Your task to perform on an android device: Search for flights from NYC to London Image 0: 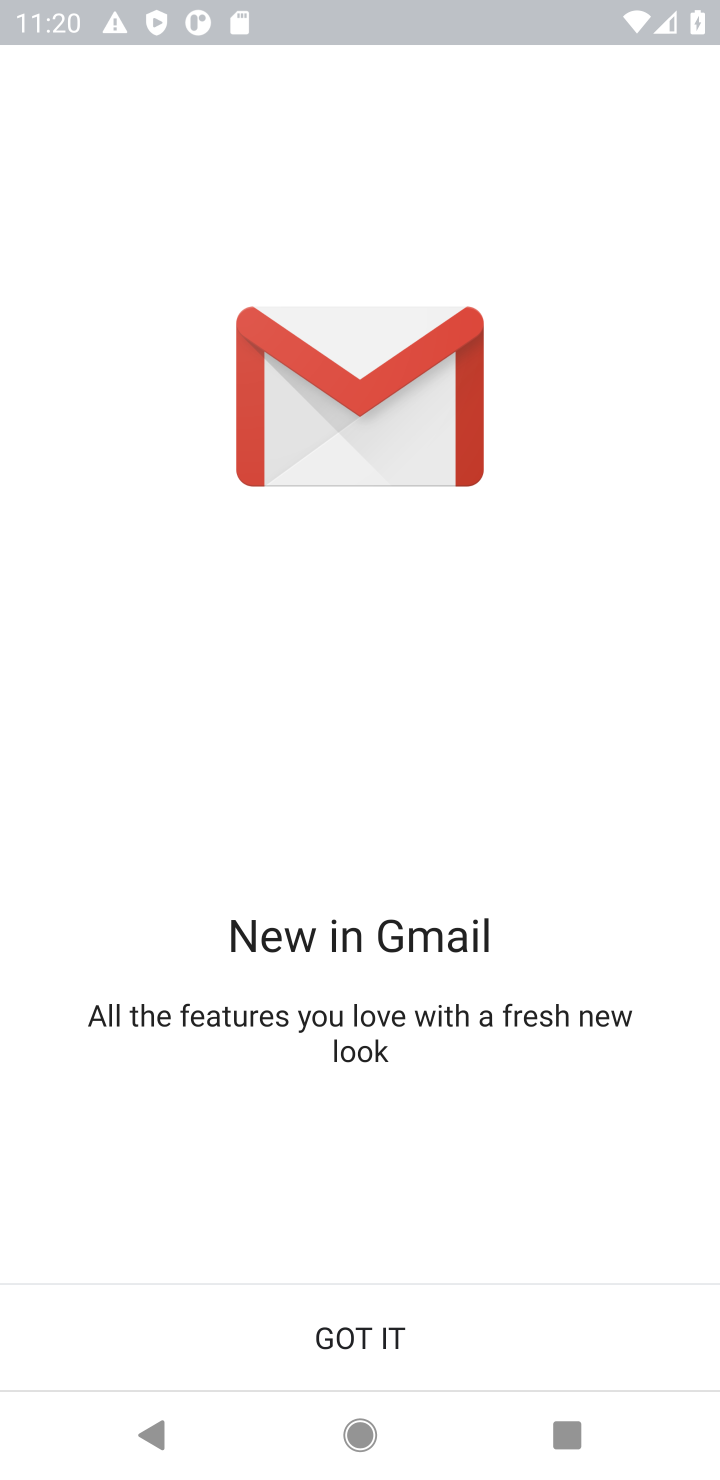
Step 0: press home button
Your task to perform on an android device: Search for flights from NYC to London Image 1: 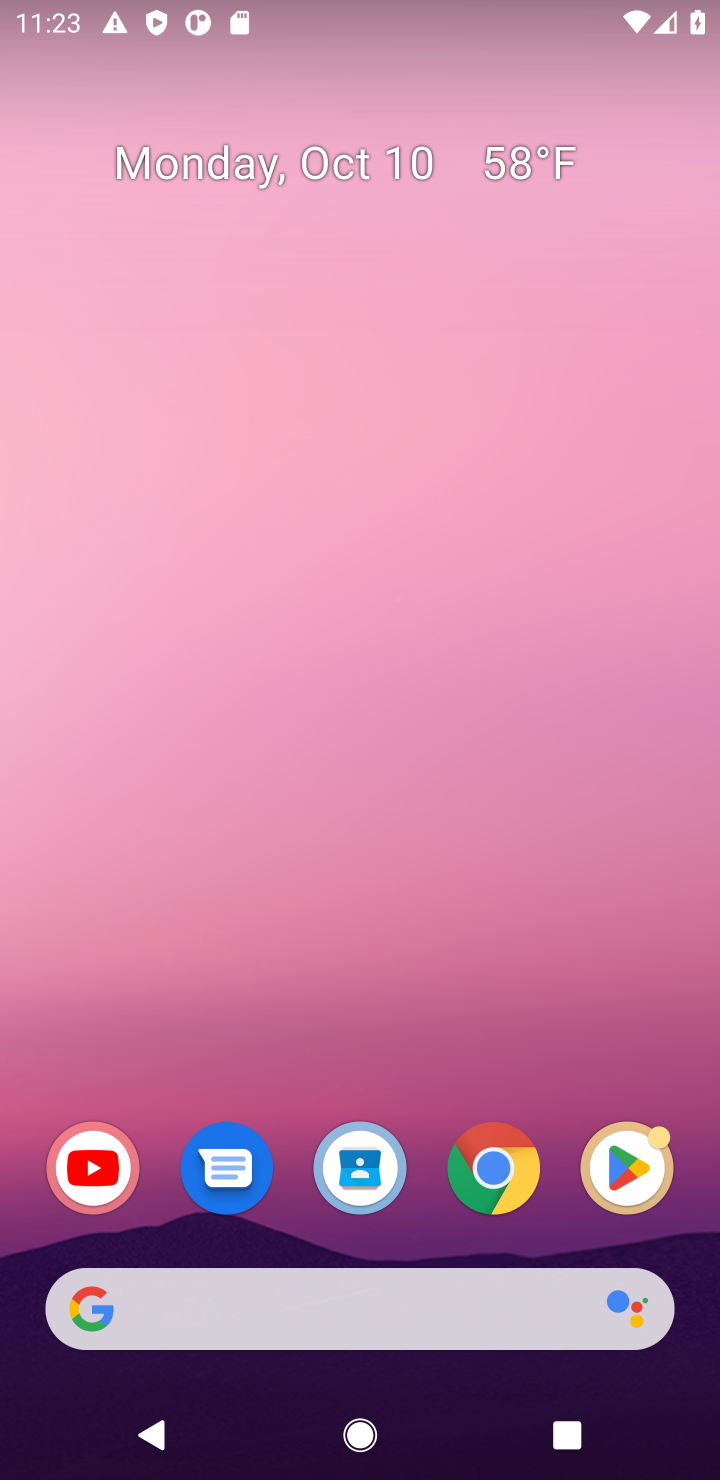
Step 1: click (331, 1280)
Your task to perform on an android device: Search for flights from NYC to London Image 2: 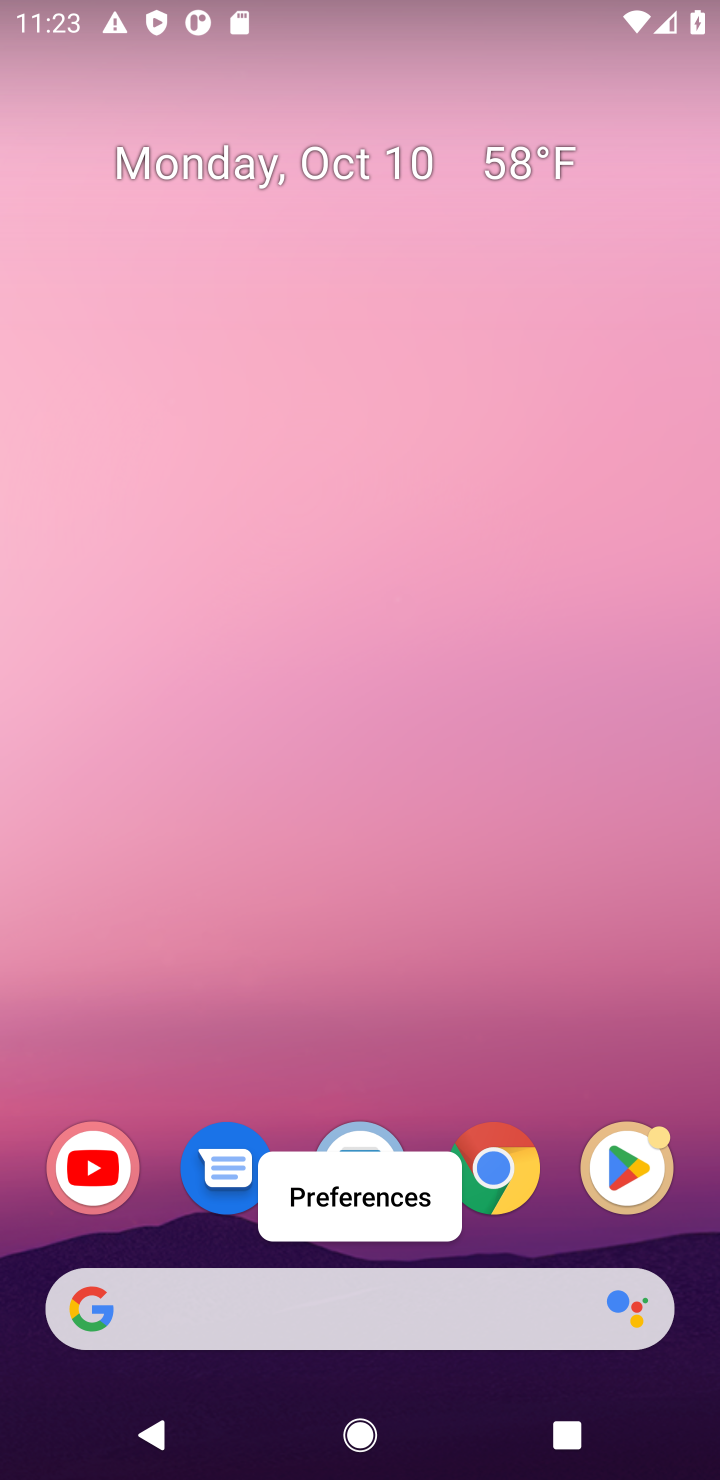
Step 2: click (333, 1301)
Your task to perform on an android device: Search for flights from NYC to London Image 3: 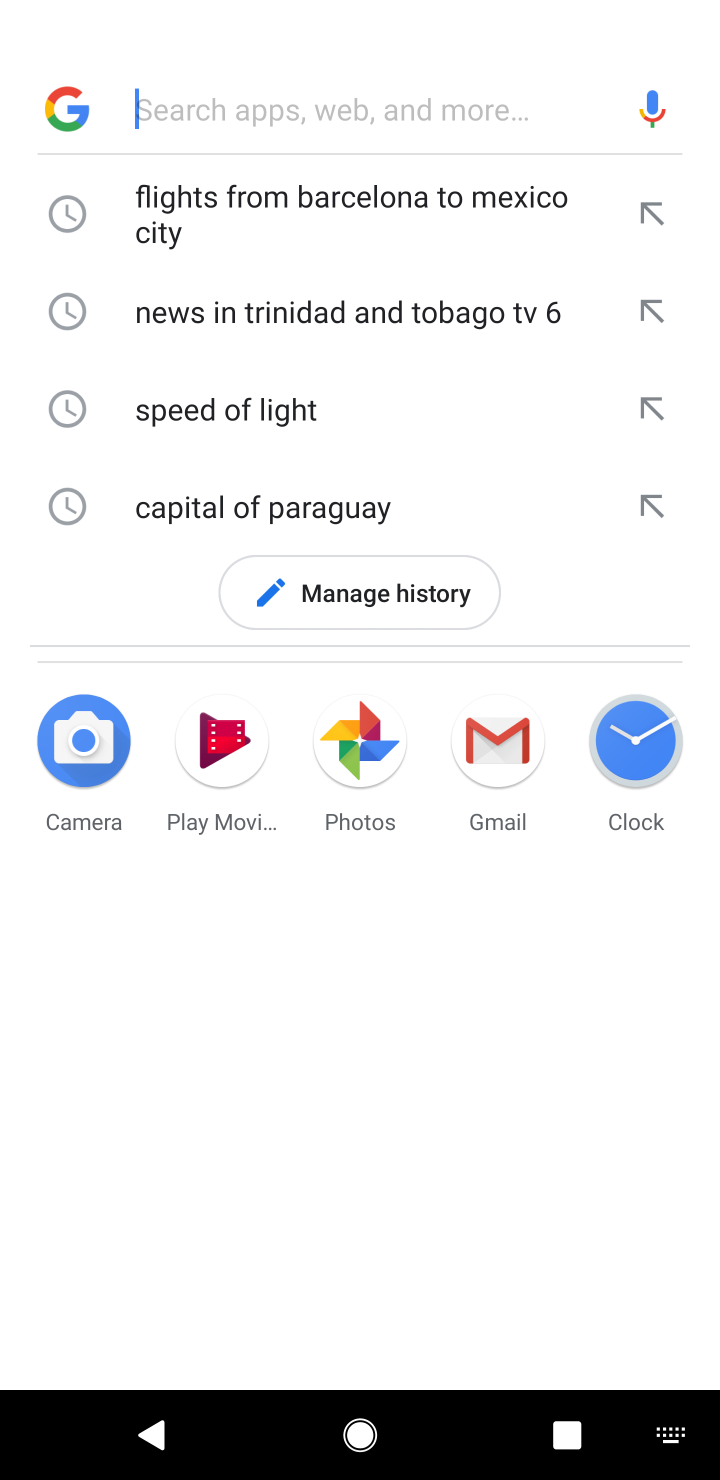
Step 3: type "flights from NYC to London"
Your task to perform on an android device: Search for flights from NYC to London Image 4: 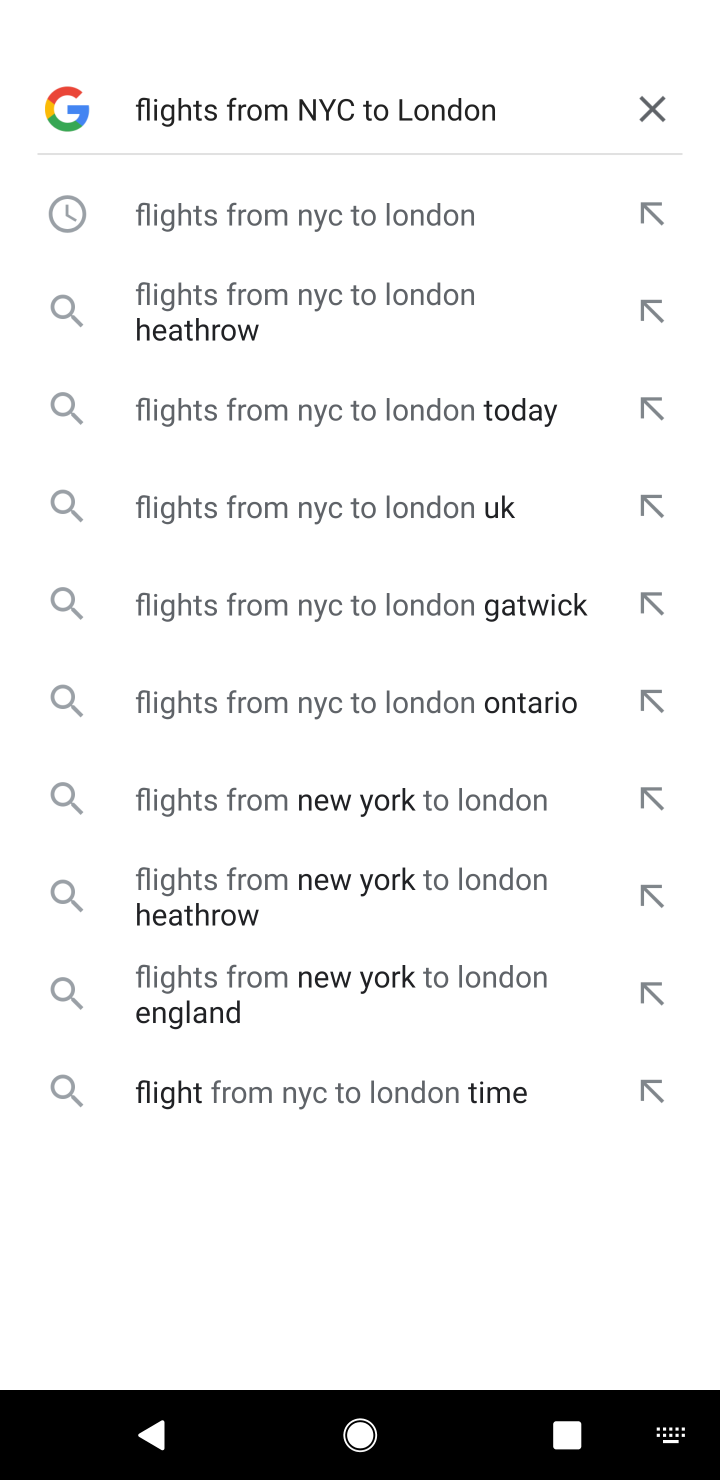
Step 4: type ""
Your task to perform on an android device: Search for flights from NYC to London Image 5: 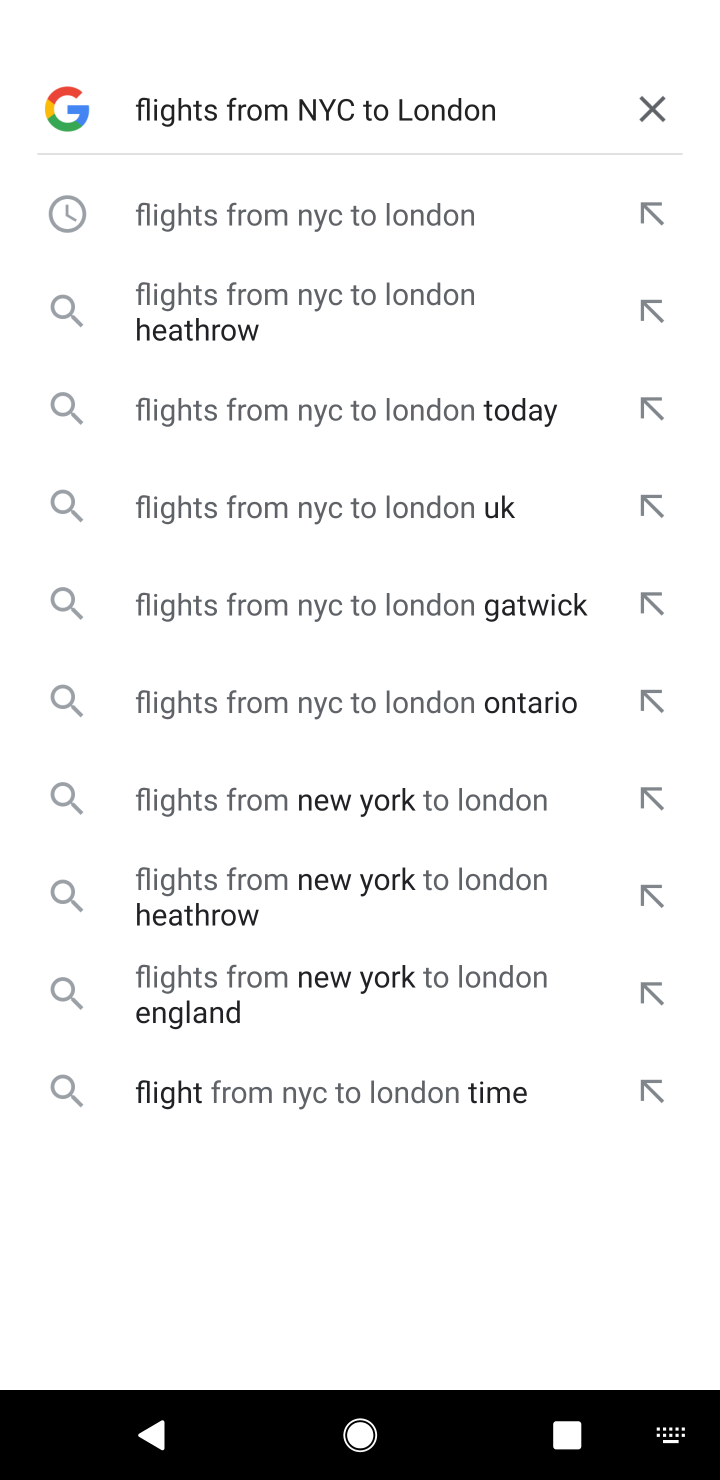
Step 5: click (270, 216)
Your task to perform on an android device: Search for flights from NYC to London Image 6: 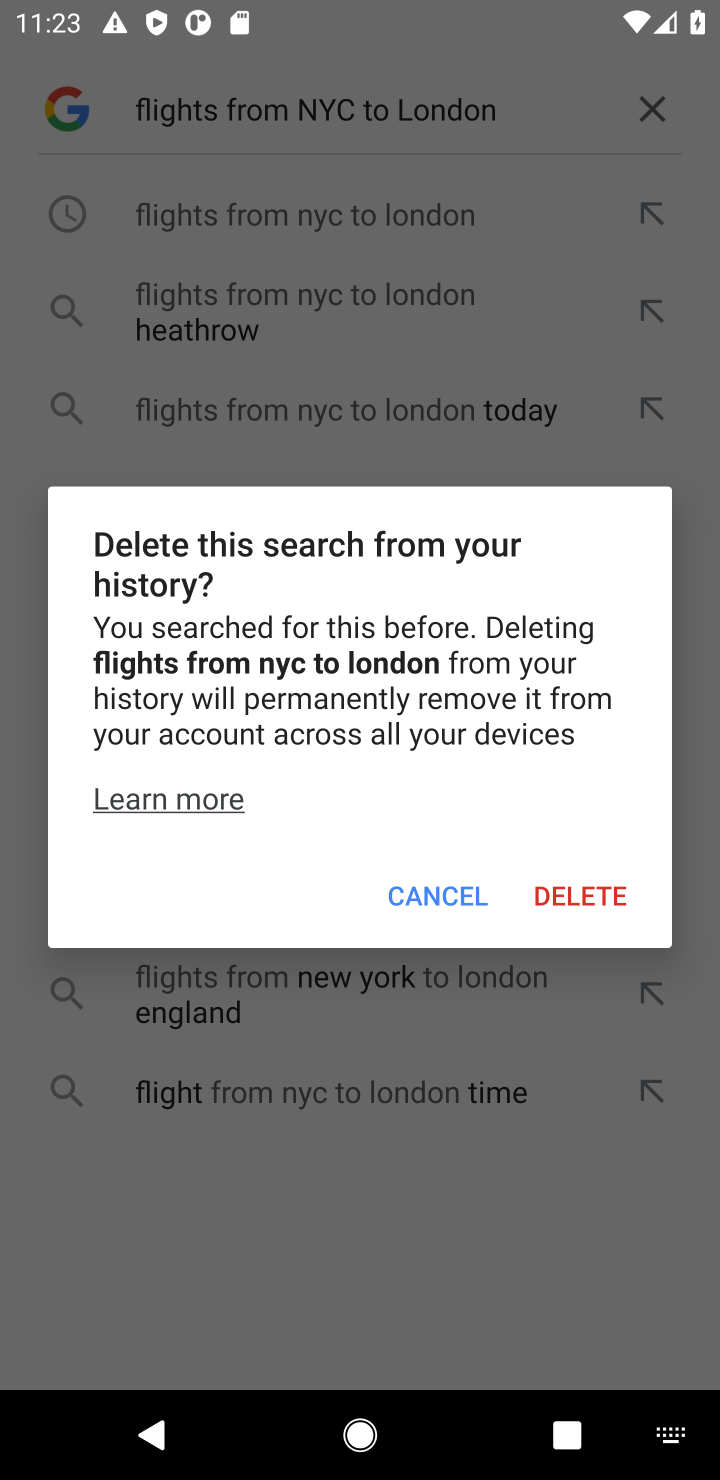
Step 6: click (422, 898)
Your task to perform on an android device: Search for flights from NYC to London Image 7: 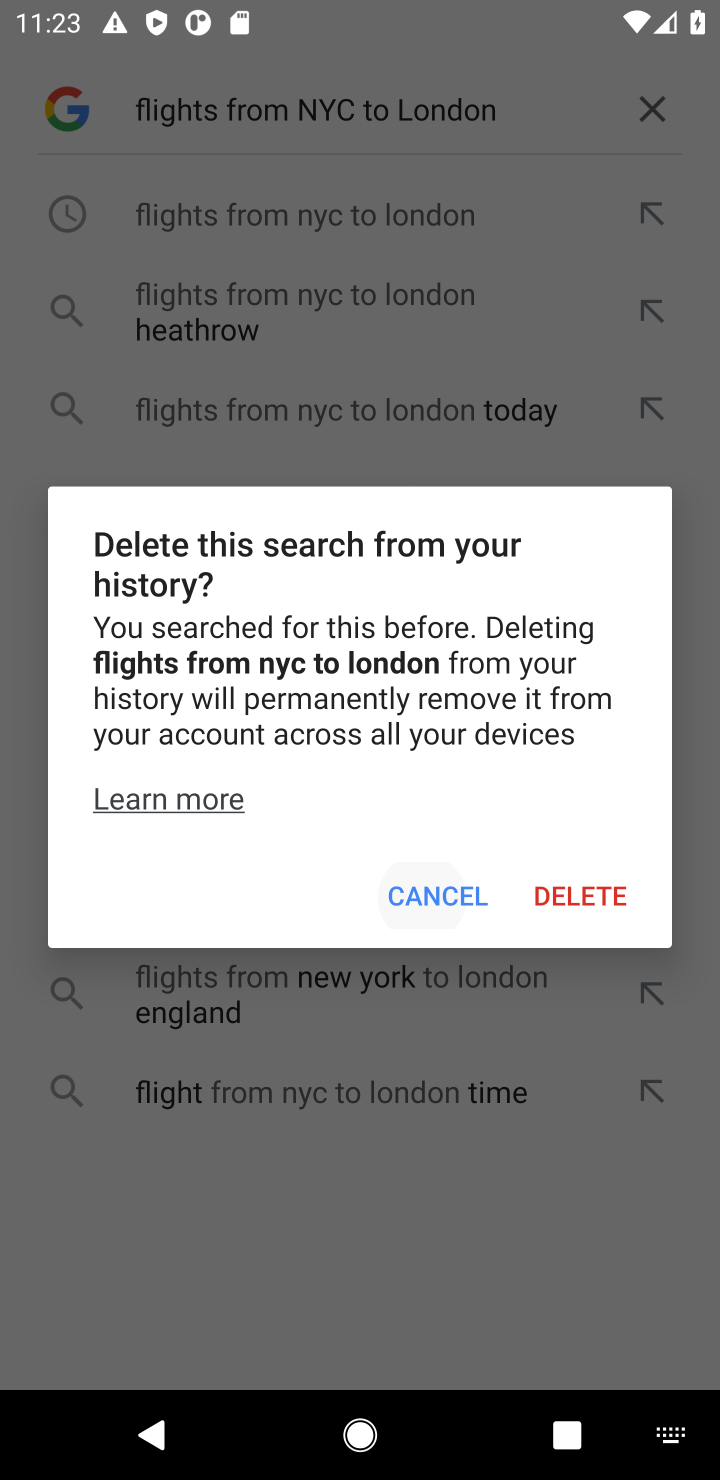
Step 7: click (405, 256)
Your task to perform on an android device: Search for flights from NYC to London Image 8: 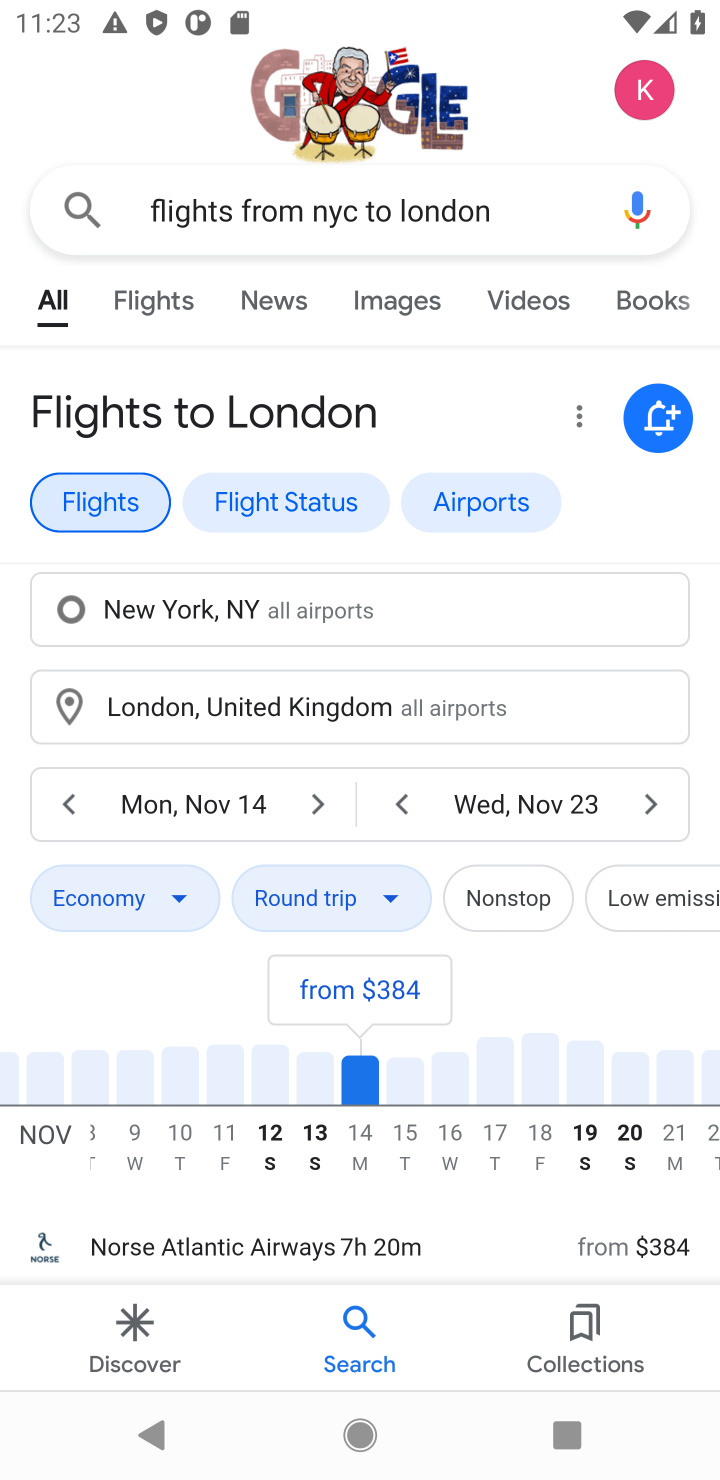
Step 8: task complete